Your task to perform on an android device: Toggle the flashlight Image 0: 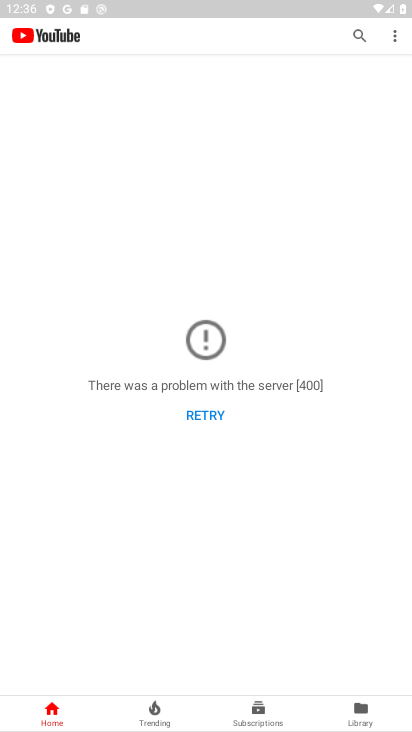
Step 0: press home button
Your task to perform on an android device: Toggle the flashlight Image 1: 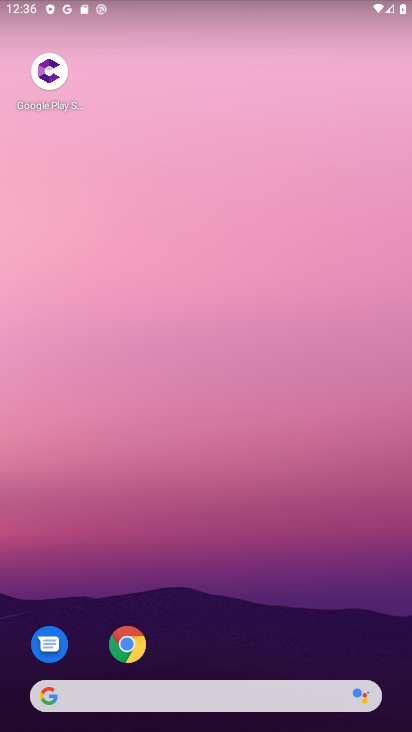
Step 1: drag from (253, 612) to (300, 9)
Your task to perform on an android device: Toggle the flashlight Image 2: 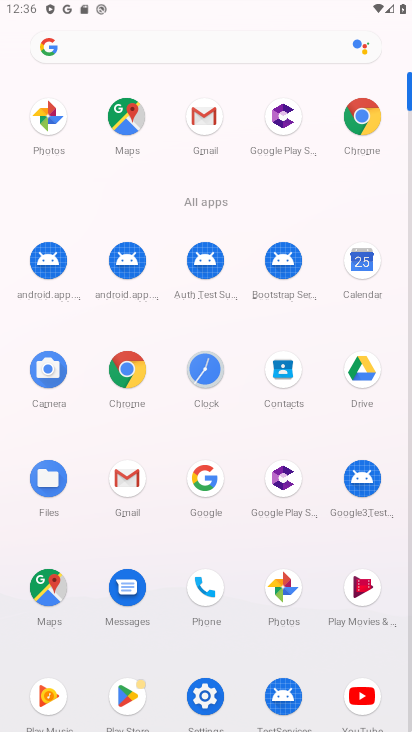
Step 2: click (206, 689)
Your task to perform on an android device: Toggle the flashlight Image 3: 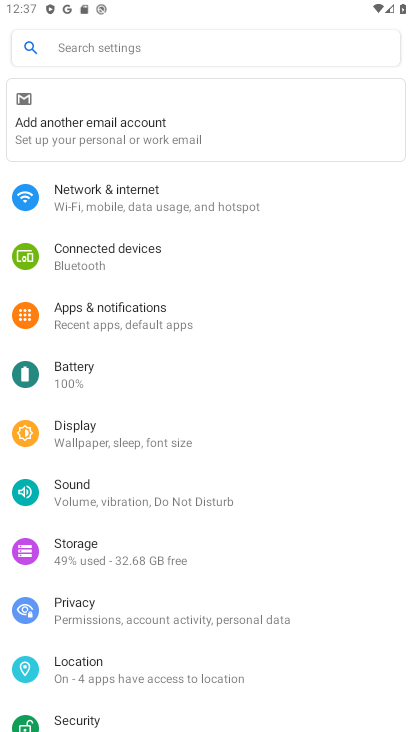
Step 3: task complete